Your task to perform on an android device: create a new album in the google photos Image 0: 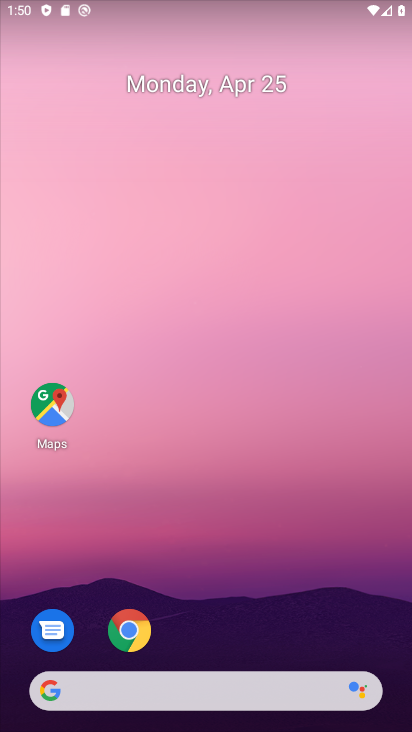
Step 0: drag from (237, 616) to (160, 36)
Your task to perform on an android device: create a new album in the google photos Image 1: 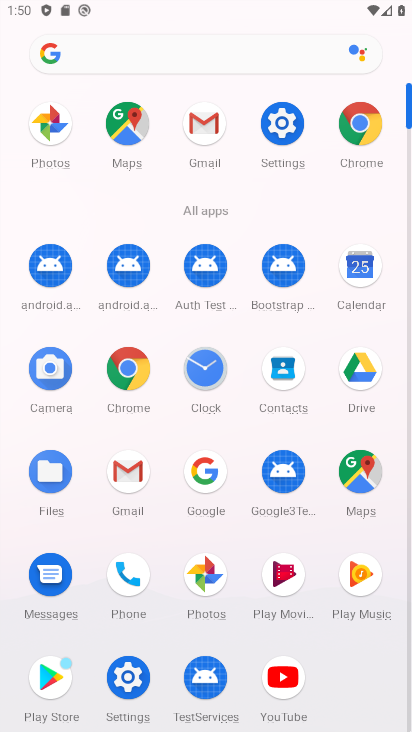
Step 1: click (39, 122)
Your task to perform on an android device: create a new album in the google photos Image 2: 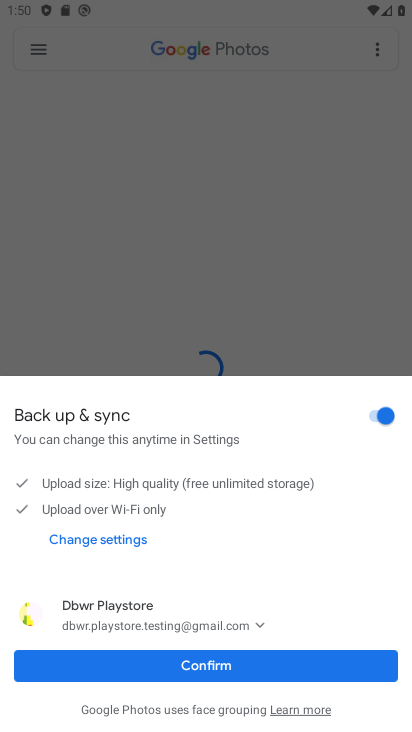
Step 2: click (180, 674)
Your task to perform on an android device: create a new album in the google photos Image 3: 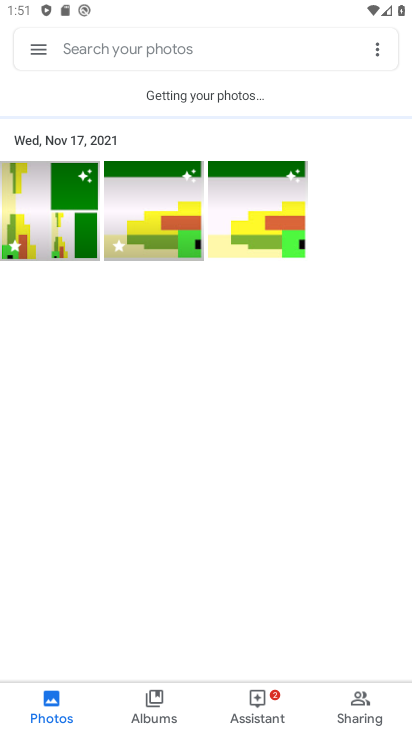
Step 3: click (49, 217)
Your task to perform on an android device: create a new album in the google photos Image 4: 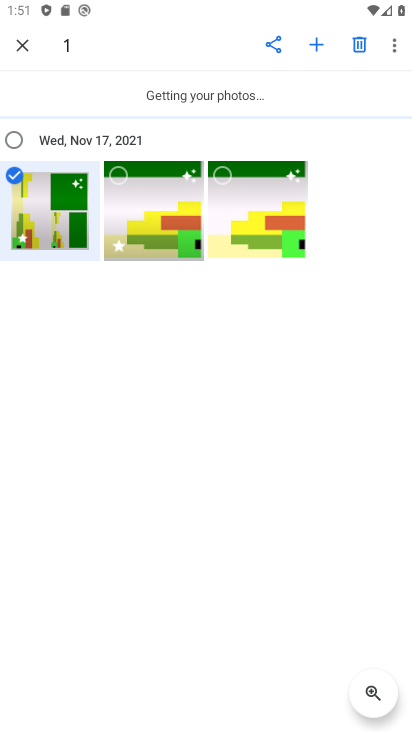
Step 4: click (119, 175)
Your task to perform on an android device: create a new album in the google photos Image 5: 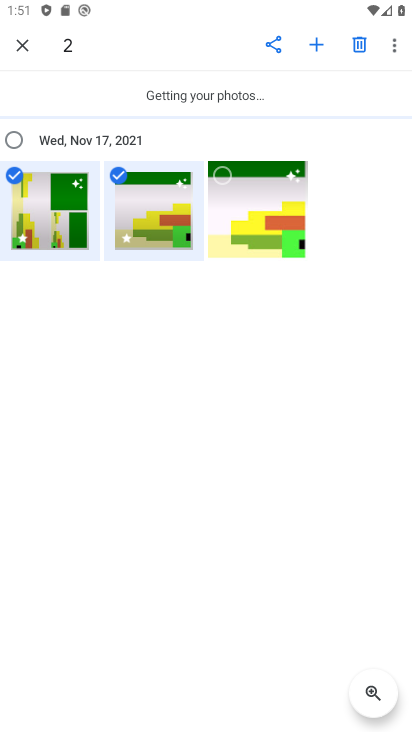
Step 5: click (320, 38)
Your task to perform on an android device: create a new album in the google photos Image 6: 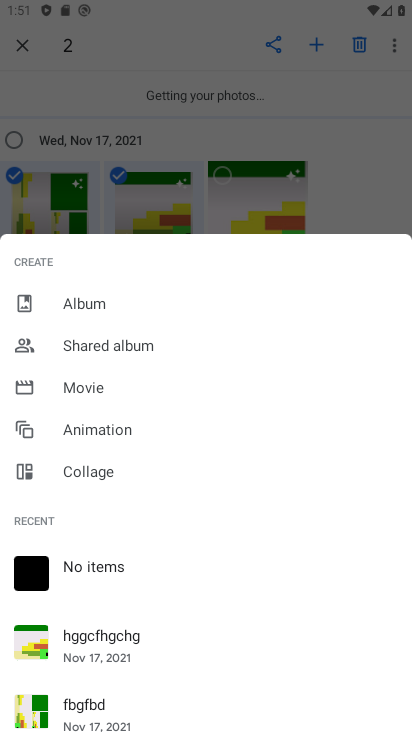
Step 6: click (123, 293)
Your task to perform on an android device: create a new album in the google photos Image 7: 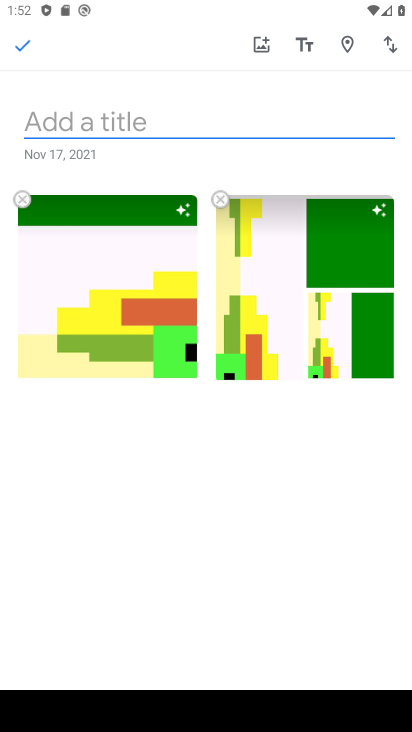
Step 7: type "hul"
Your task to perform on an android device: create a new album in the google photos Image 8: 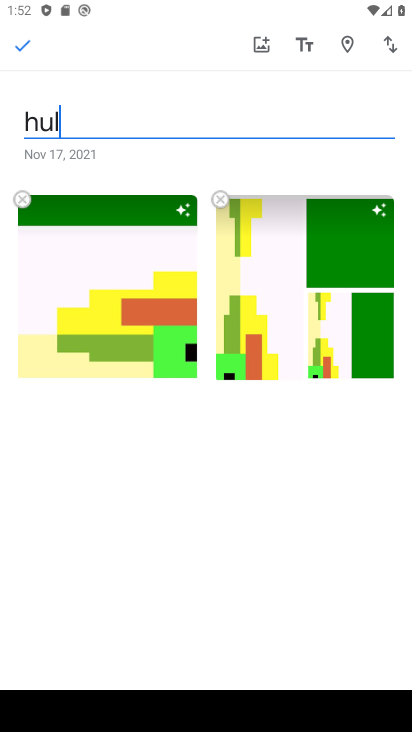
Step 8: click (30, 46)
Your task to perform on an android device: create a new album in the google photos Image 9: 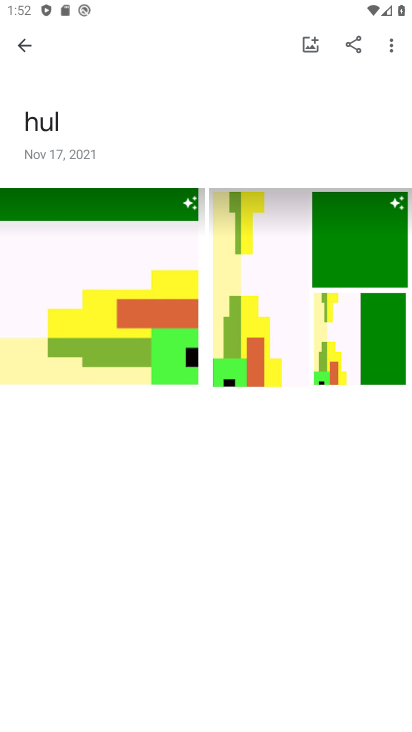
Step 9: task complete